Your task to perform on an android device: What is the recent news? Image 0: 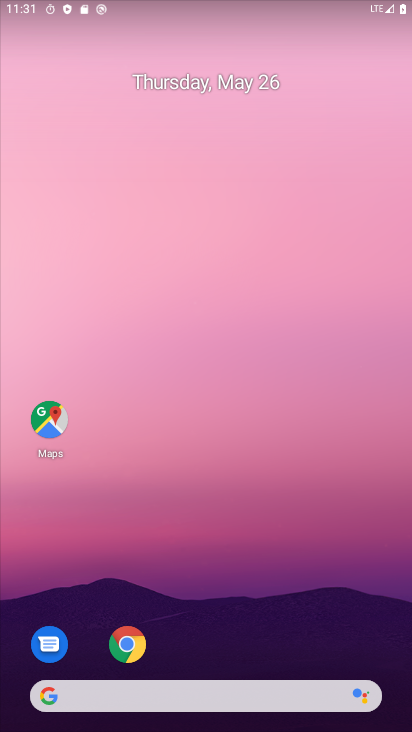
Step 0: click (245, 691)
Your task to perform on an android device: What is the recent news? Image 1: 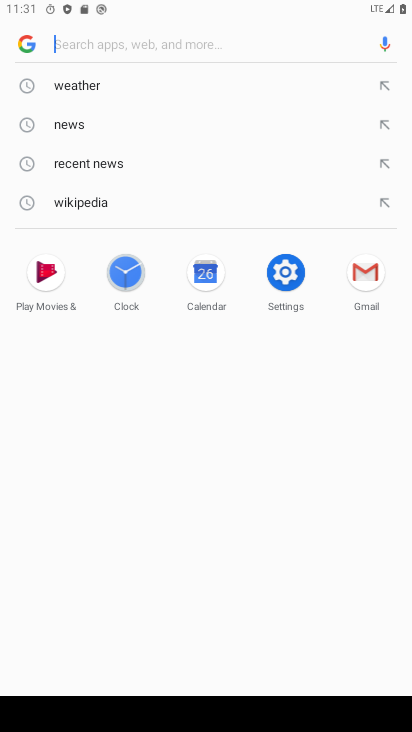
Step 1: click (89, 164)
Your task to perform on an android device: What is the recent news? Image 2: 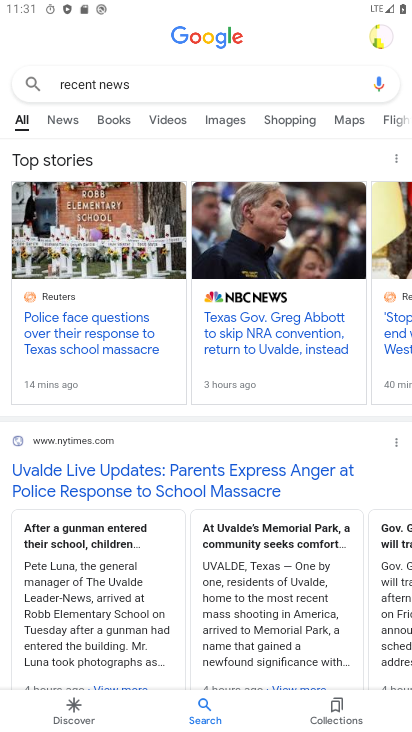
Step 2: task complete